Your task to perform on an android device: stop showing notifications on the lock screen Image 0: 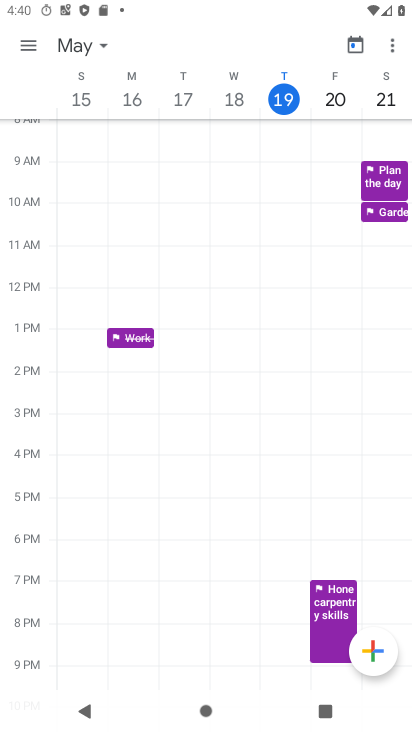
Step 0: press home button
Your task to perform on an android device: stop showing notifications on the lock screen Image 1: 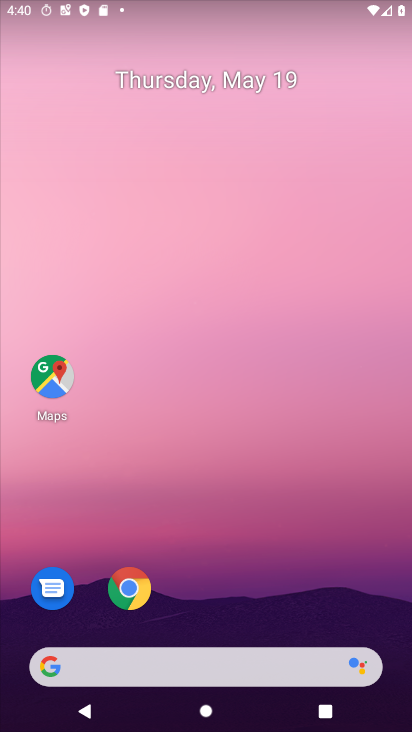
Step 1: drag from (211, 594) to (249, 91)
Your task to perform on an android device: stop showing notifications on the lock screen Image 2: 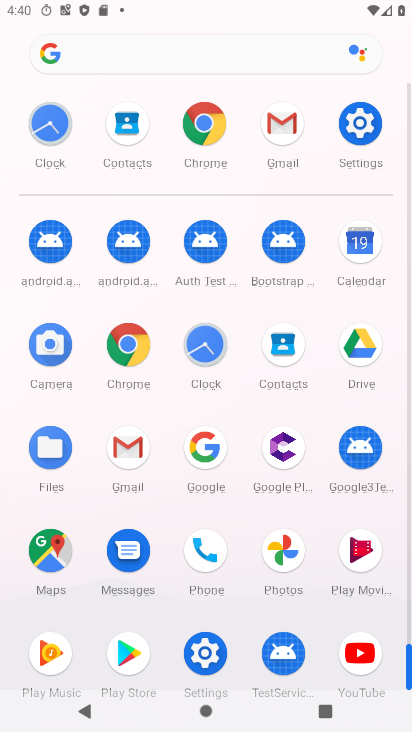
Step 2: click (362, 145)
Your task to perform on an android device: stop showing notifications on the lock screen Image 3: 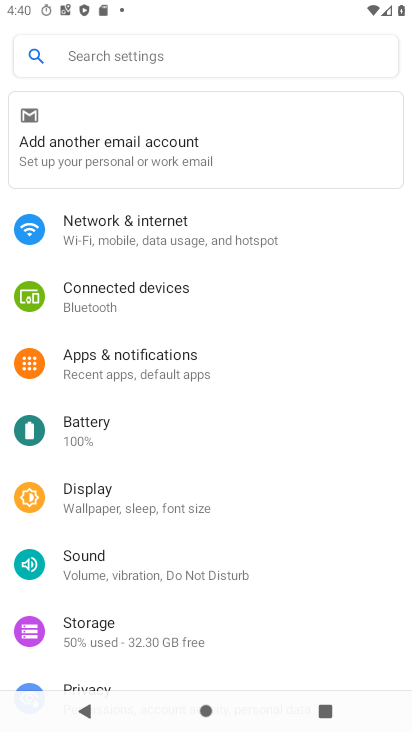
Step 3: drag from (160, 596) to (179, 458)
Your task to perform on an android device: stop showing notifications on the lock screen Image 4: 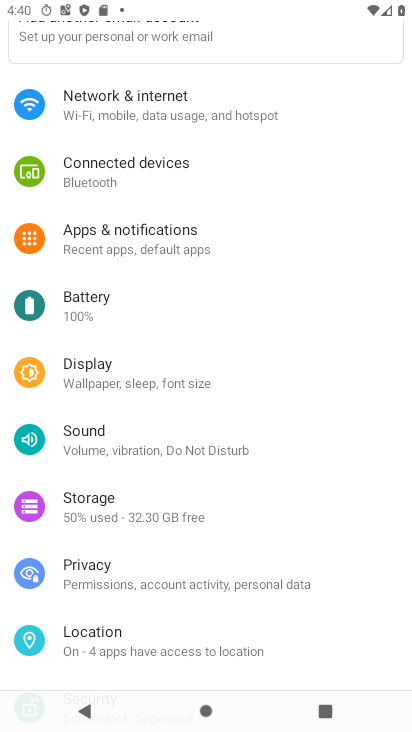
Step 4: click (145, 239)
Your task to perform on an android device: stop showing notifications on the lock screen Image 5: 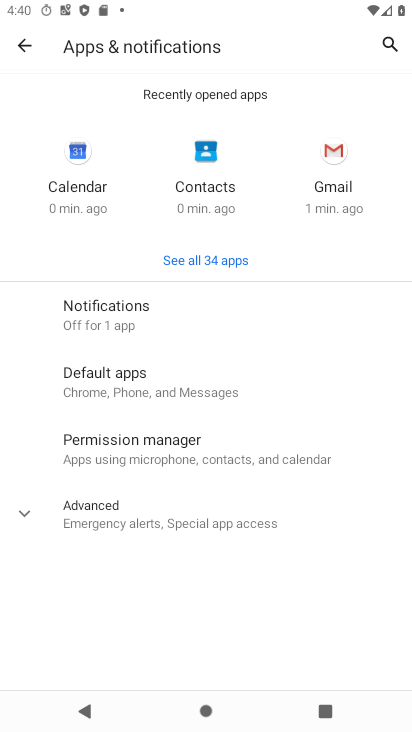
Step 5: click (136, 309)
Your task to perform on an android device: stop showing notifications on the lock screen Image 6: 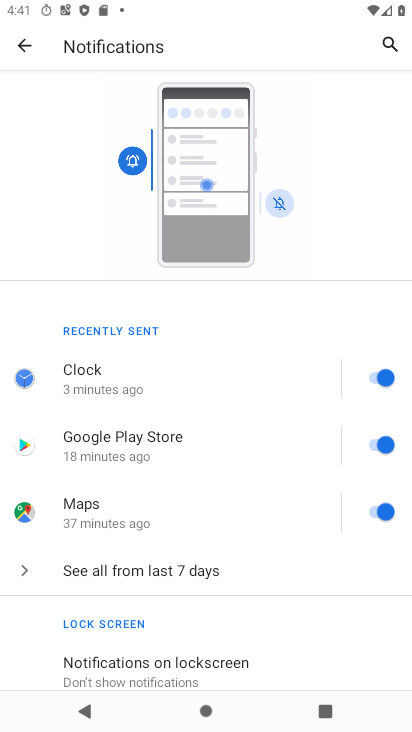
Step 6: task complete